Your task to perform on an android device: Show me productivity apps on the Play Store Image 0: 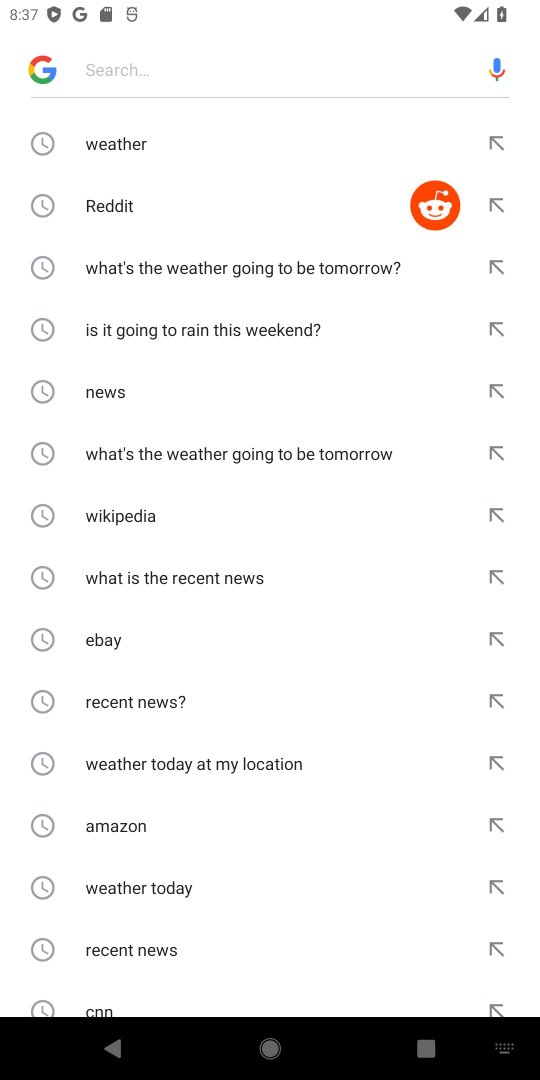
Step 0: press home button
Your task to perform on an android device: Show me productivity apps on the Play Store Image 1: 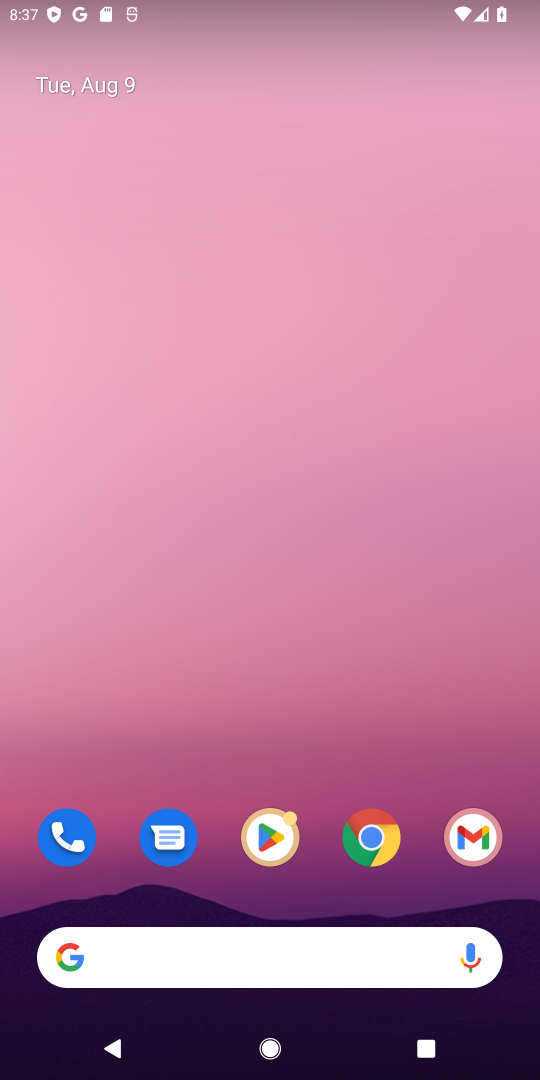
Step 1: drag from (309, 916) to (304, 165)
Your task to perform on an android device: Show me productivity apps on the Play Store Image 2: 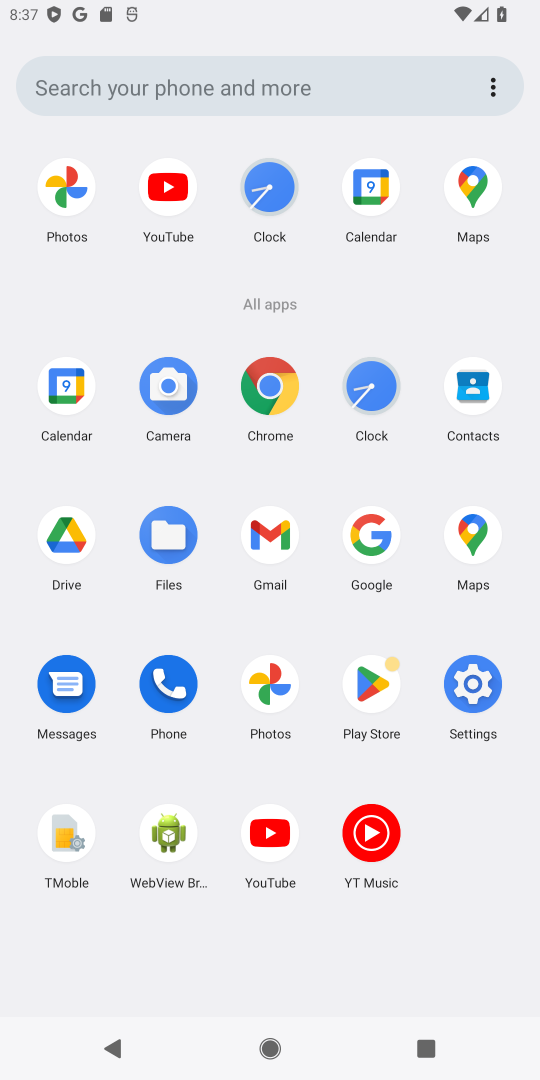
Step 2: click (381, 677)
Your task to perform on an android device: Show me productivity apps on the Play Store Image 3: 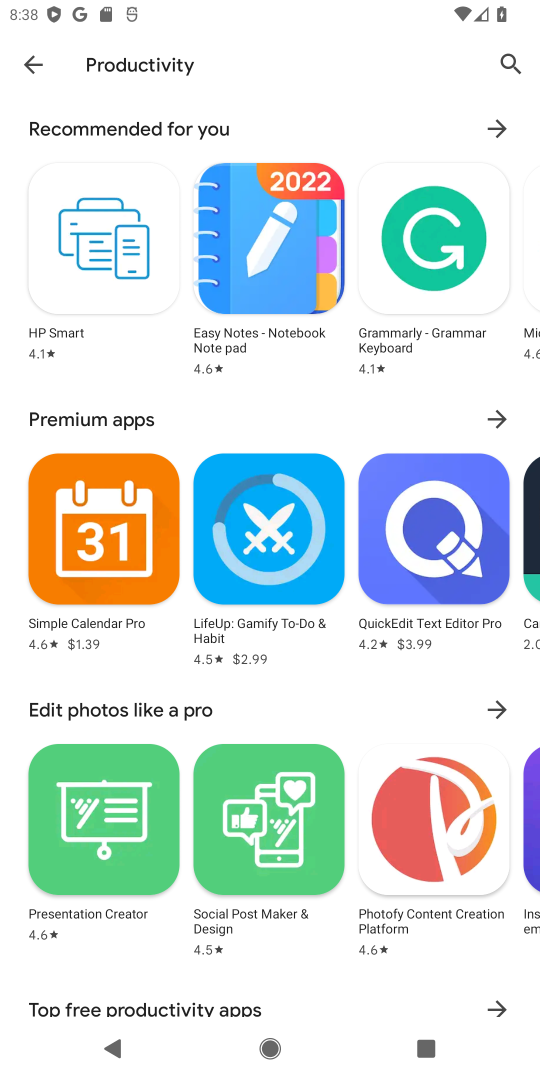
Step 3: task complete